Your task to perform on an android device: open wifi settings Image 0: 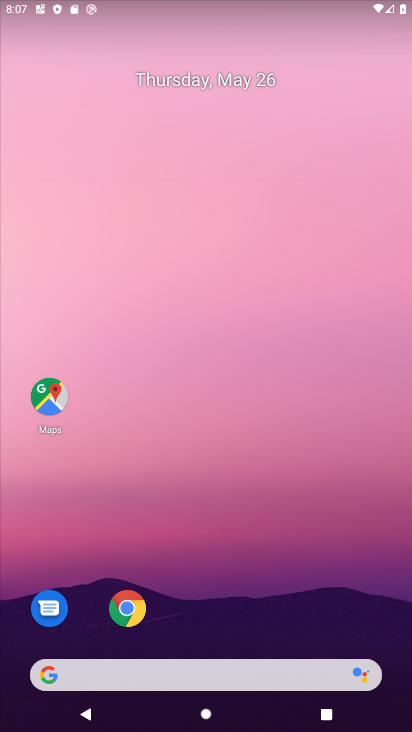
Step 0: drag from (156, 729) to (224, 168)
Your task to perform on an android device: open wifi settings Image 1: 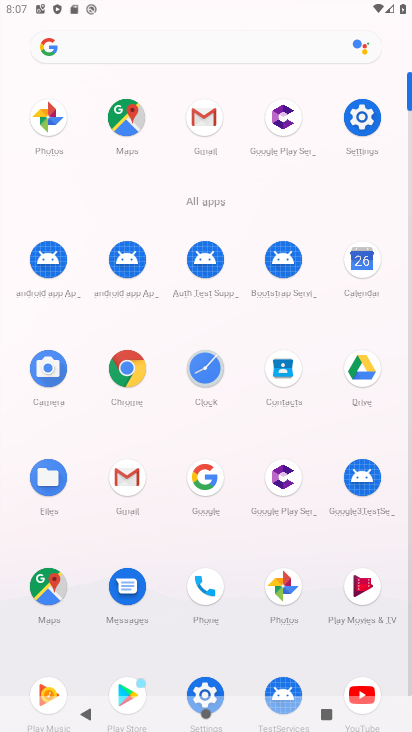
Step 1: click (370, 128)
Your task to perform on an android device: open wifi settings Image 2: 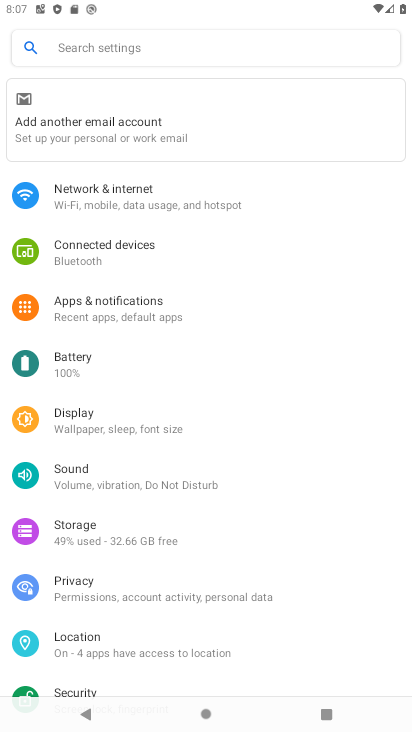
Step 2: click (125, 199)
Your task to perform on an android device: open wifi settings Image 3: 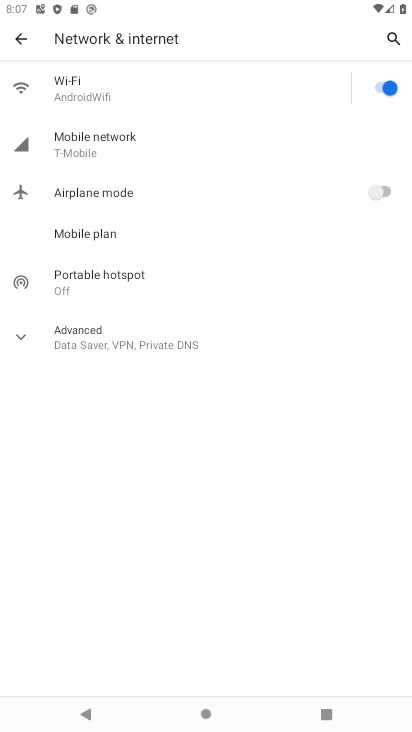
Step 3: click (110, 102)
Your task to perform on an android device: open wifi settings Image 4: 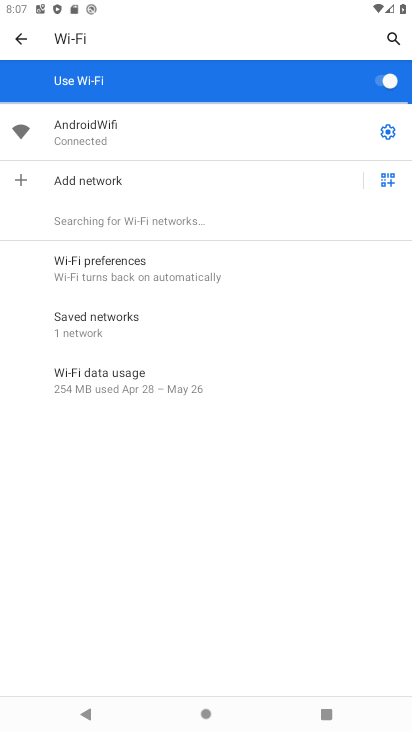
Step 4: task complete